Your task to perform on an android device: turn off smart reply in the gmail app Image 0: 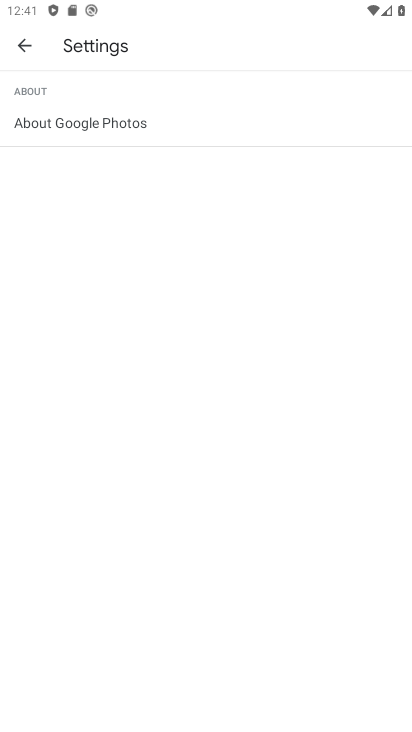
Step 0: drag from (359, 597) to (355, 103)
Your task to perform on an android device: turn off smart reply in the gmail app Image 1: 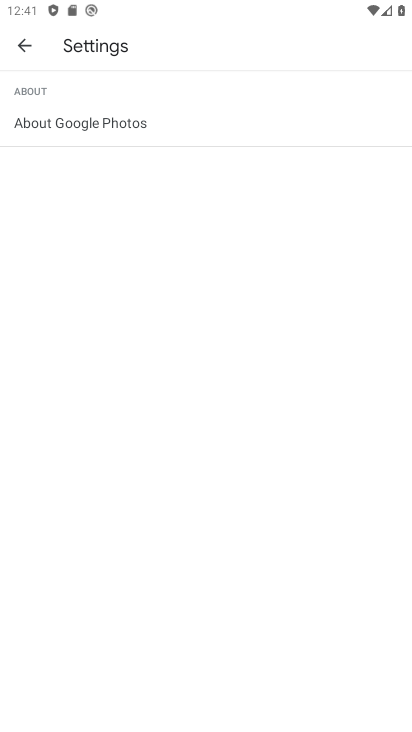
Step 1: press home button
Your task to perform on an android device: turn off smart reply in the gmail app Image 2: 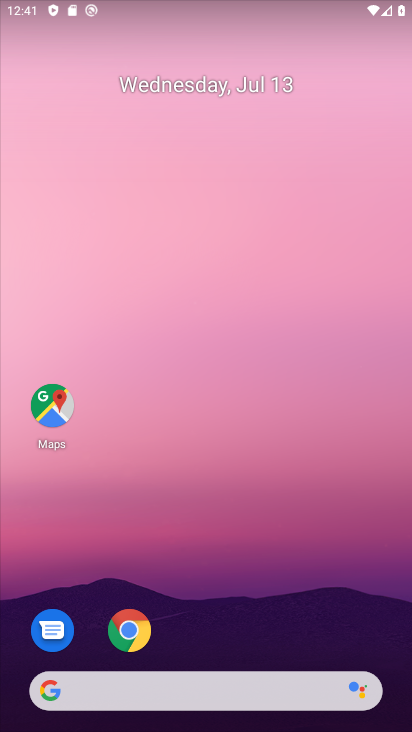
Step 2: drag from (329, 498) to (272, 67)
Your task to perform on an android device: turn off smart reply in the gmail app Image 3: 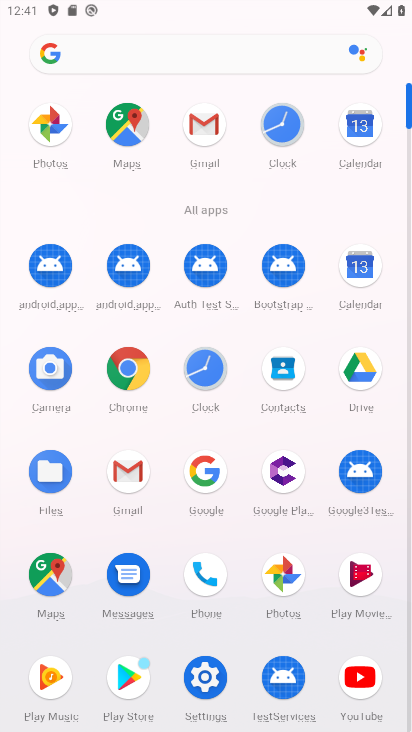
Step 3: click (217, 131)
Your task to perform on an android device: turn off smart reply in the gmail app Image 4: 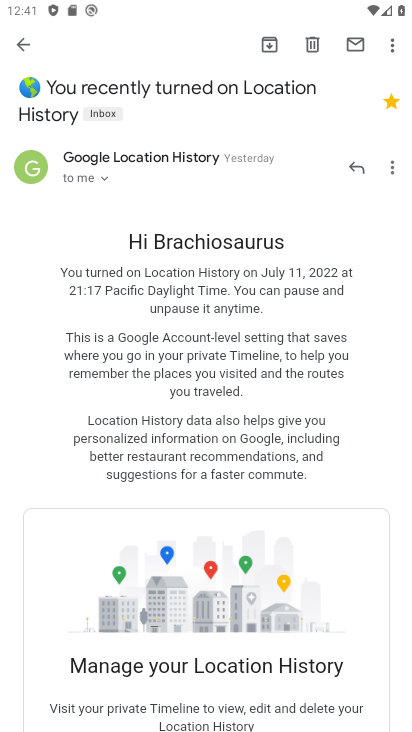
Step 4: click (21, 48)
Your task to perform on an android device: turn off smart reply in the gmail app Image 5: 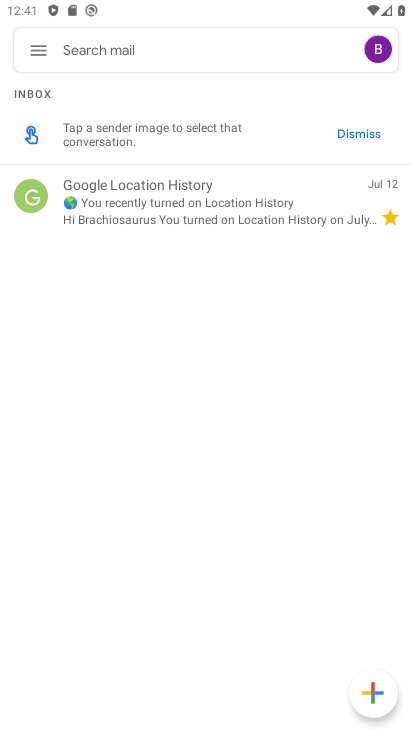
Step 5: click (41, 48)
Your task to perform on an android device: turn off smart reply in the gmail app Image 6: 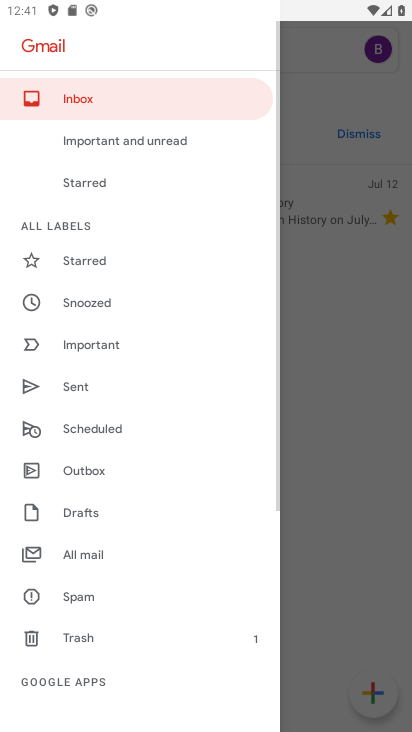
Step 6: drag from (136, 658) to (140, 192)
Your task to perform on an android device: turn off smart reply in the gmail app Image 7: 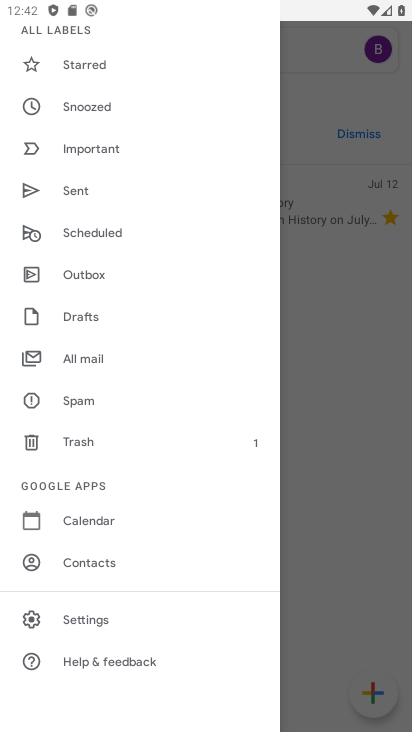
Step 7: click (84, 619)
Your task to perform on an android device: turn off smart reply in the gmail app Image 8: 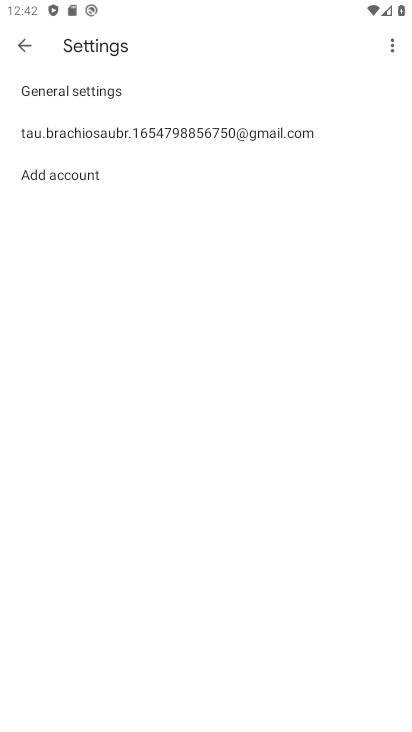
Step 8: click (82, 138)
Your task to perform on an android device: turn off smart reply in the gmail app Image 9: 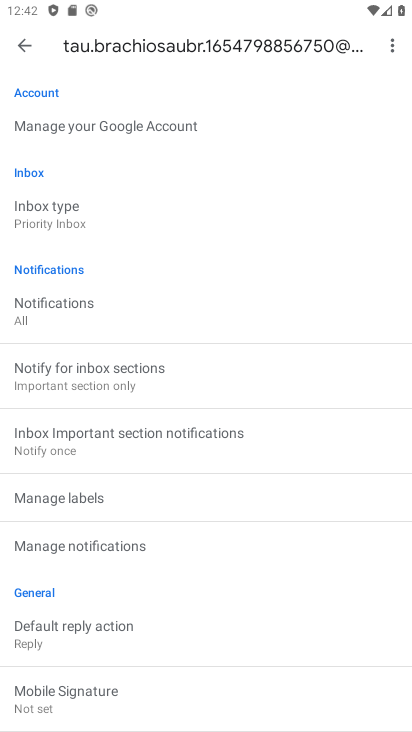
Step 9: drag from (200, 602) to (197, 120)
Your task to perform on an android device: turn off smart reply in the gmail app Image 10: 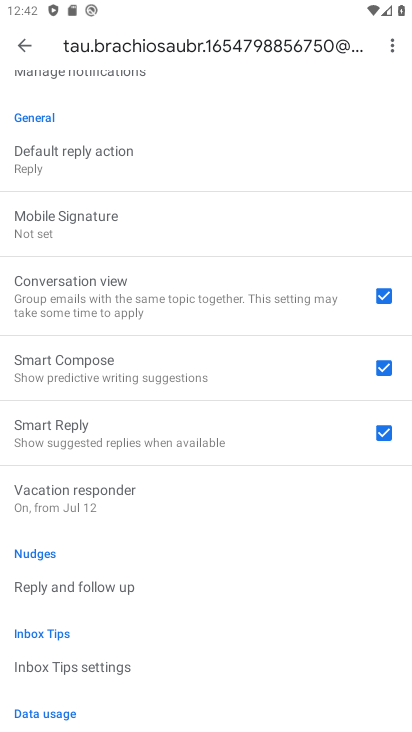
Step 10: drag from (282, 636) to (235, 173)
Your task to perform on an android device: turn off smart reply in the gmail app Image 11: 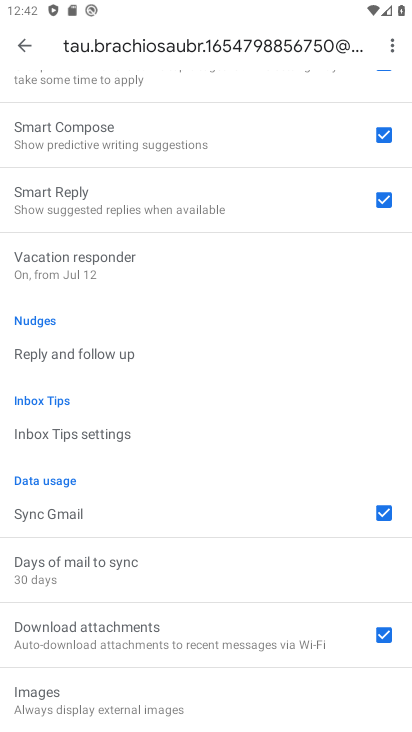
Step 11: click (379, 200)
Your task to perform on an android device: turn off smart reply in the gmail app Image 12: 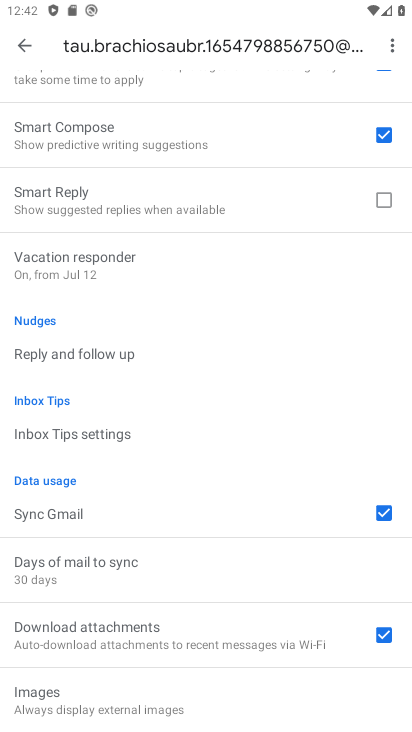
Step 12: task complete